Your task to perform on an android device: Open Google Maps Image 0: 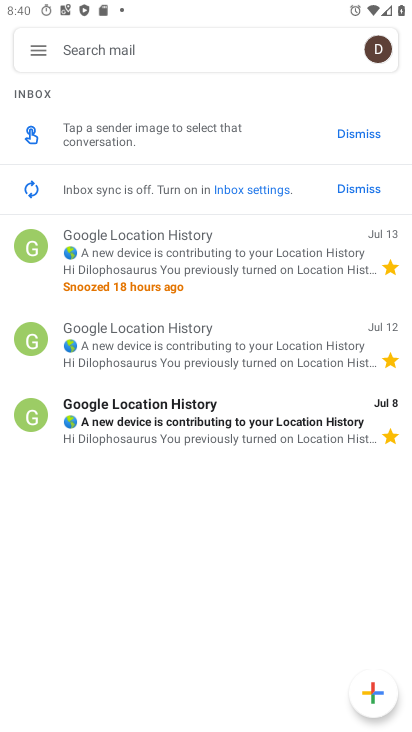
Step 0: press home button
Your task to perform on an android device: Open Google Maps Image 1: 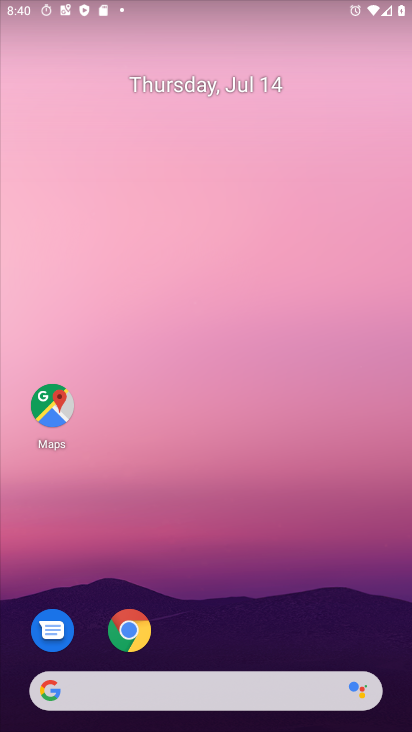
Step 1: drag from (190, 727) to (183, 93)
Your task to perform on an android device: Open Google Maps Image 2: 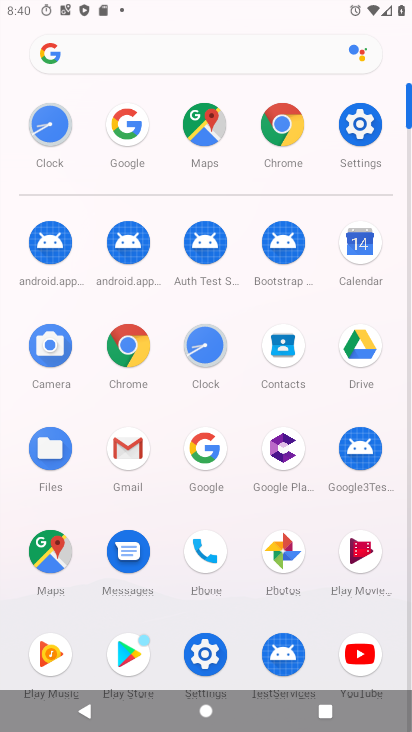
Step 2: click (46, 539)
Your task to perform on an android device: Open Google Maps Image 3: 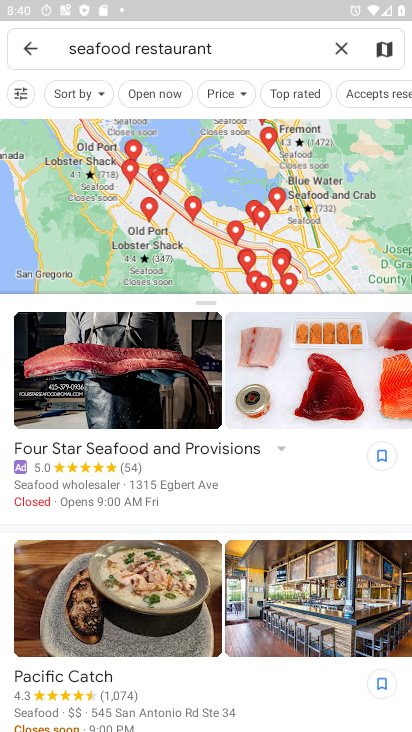
Step 3: task complete